Your task to perform on an android device: check data usage Image 0: 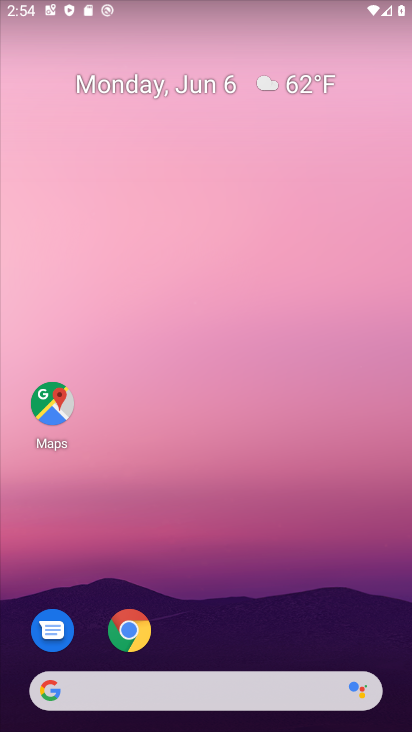
Step 0: drag from (289, 679) to (284, 293)
Your task to perform on an android device: check data usage Image 1: 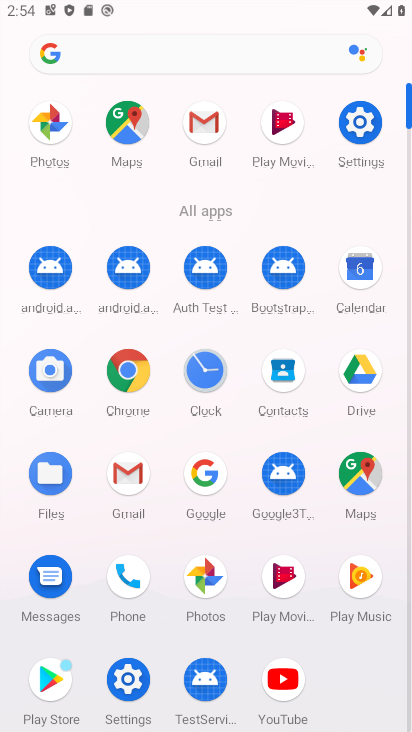
Step 1: click (354, 125)
Your task to perform on an android device: check data usage Image 2: 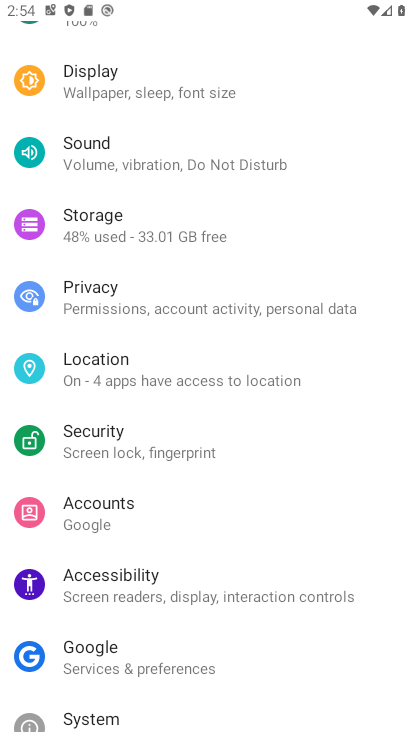
Step 2: drag from (124, 126) to (129, 509)
Your task to perform on an android device: check data usage Image 3: 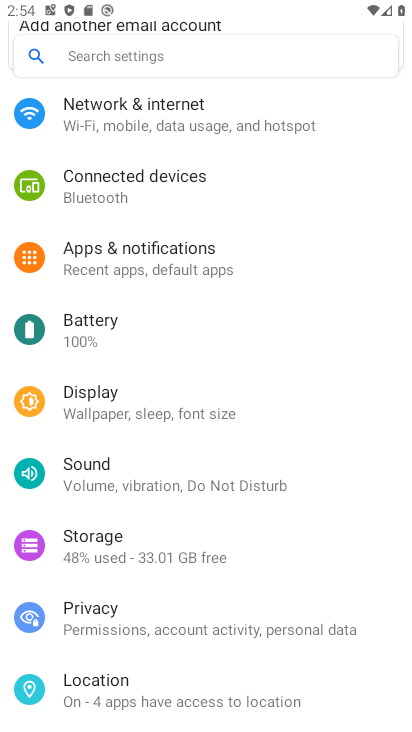
Step 3: click (122, 120)
Your task to perform on an android device: check data usage Image 4: 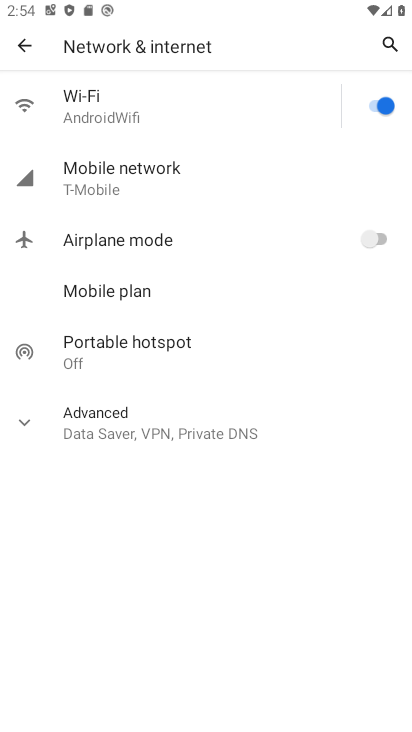
Step 4: click (135, 163)
Your task to perform on an android device: check data usage Image 5: 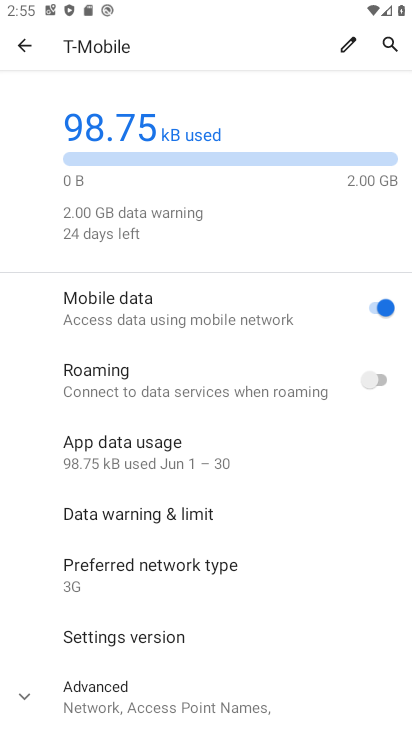
Step 5: task complete